Your task to perform on an android device: Open privacy settings Image 0: 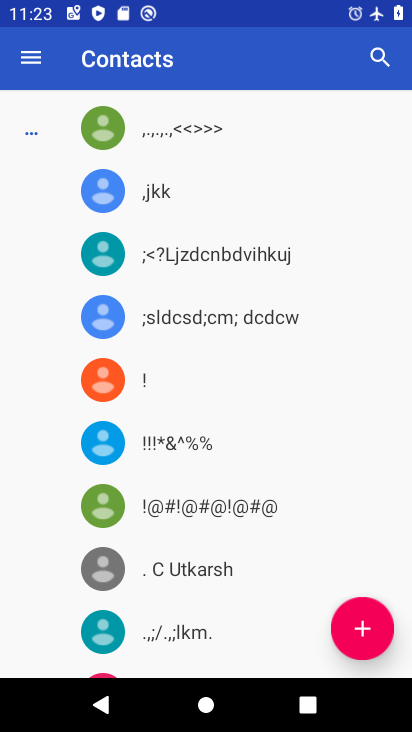
Step 0: press home button
Your task to perform on an android device: Open privacy settings Image 1: 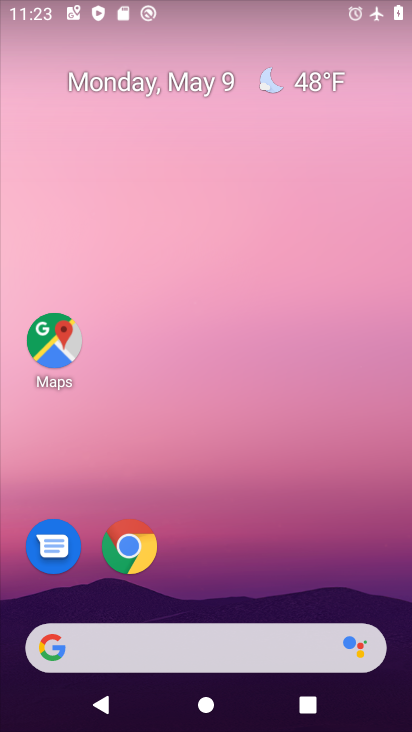
Step 1: drag from (342, 565) to (340, 2)
Your task to perform on an android device: Open privacy settings Image 2: 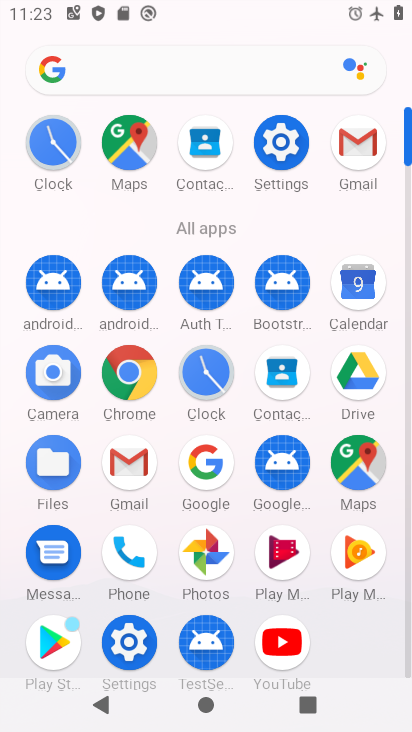
Step 2: click (287, 152)
Your task to perform on an android device: Open privacy settings Image 3: 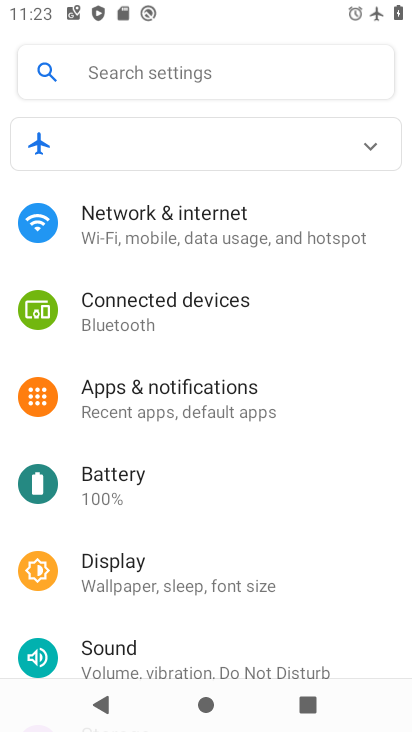
Step 3: drag from (343, 561) to (358, 140)
Your task to perform on an android device: Open privacy settings Image 4: 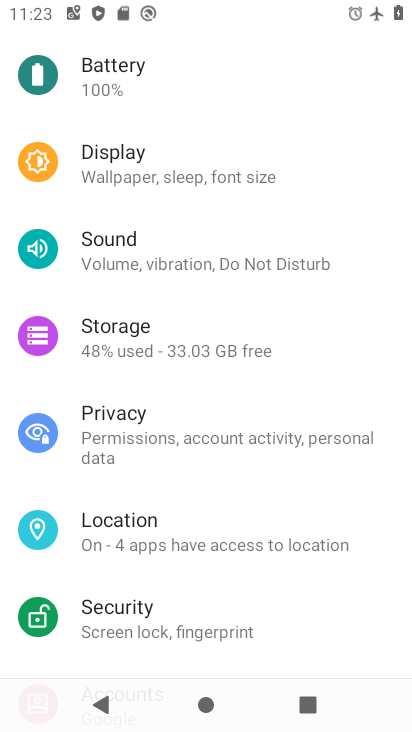
Step 4: click (129, 438)
Your task to perform on an android device: Open privacy settings Image 5: 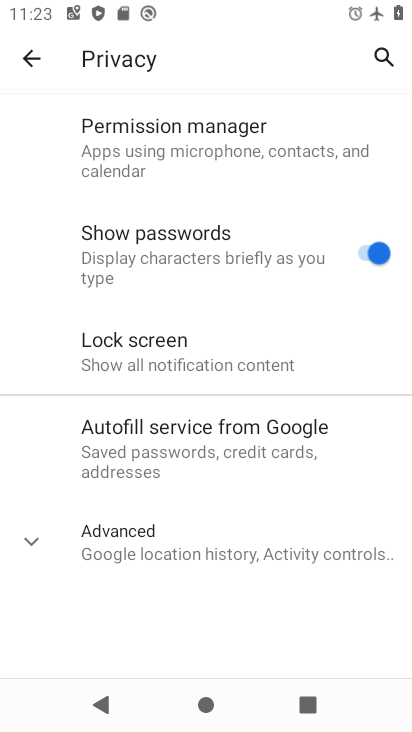
Step 5: task complete